Your task to perform on an android device: set default search engine in the chrome app Image 0: 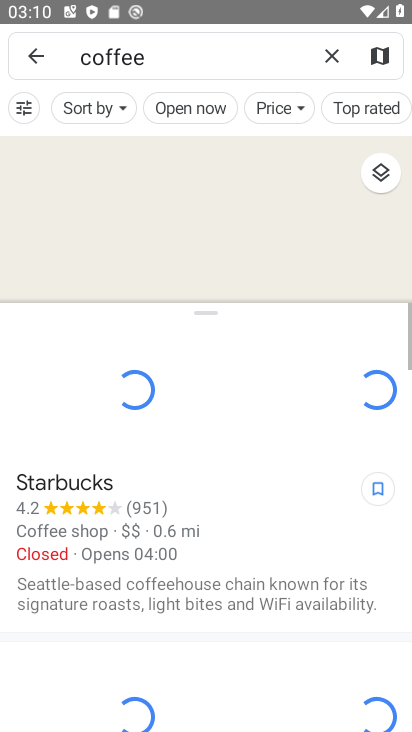
Step 0: press home button
Your task to perform on an android device: set default search engine in the chrome app Image 1: 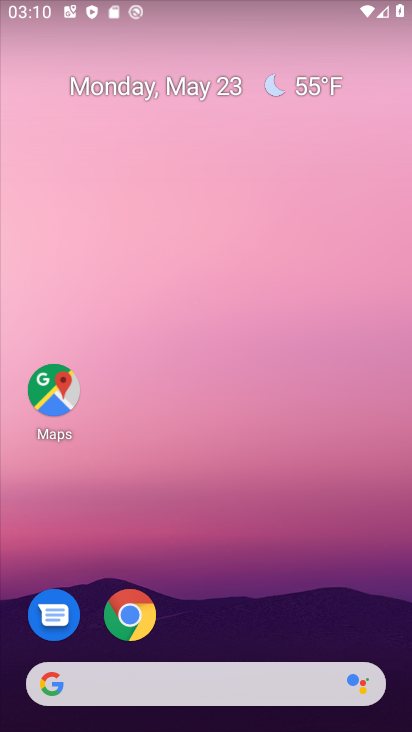
Step 1: drag from (363, 618) to (348, 260)
Your task to perform on an android device: set default search engine in the chrome app Image 2: 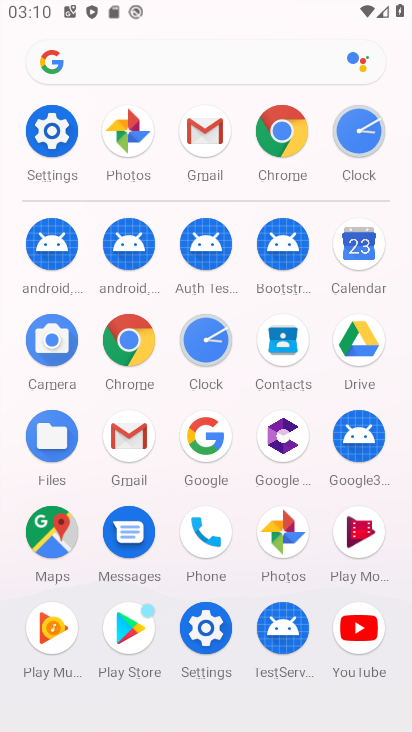
Step 2: click (291, 146)
Your task to perform on an android device: set default search engine in the chrome app Image 3: 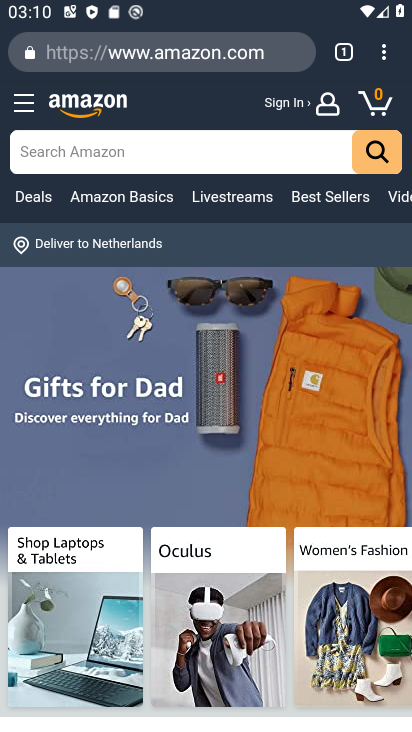
Step 3: click (387, 62)
Your task to perform on an android device: set default search engine in the chrome app Image 4: 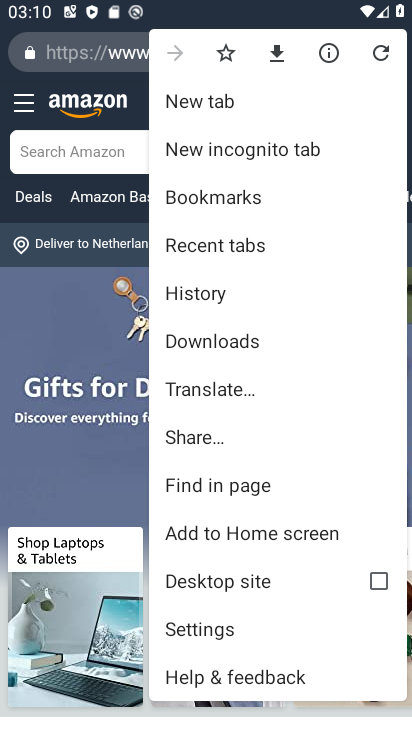
Step 4: drag from (332, 501) to (328, 343)
Your task to perform on an android device: set default search engine in the chrome app Image 5: 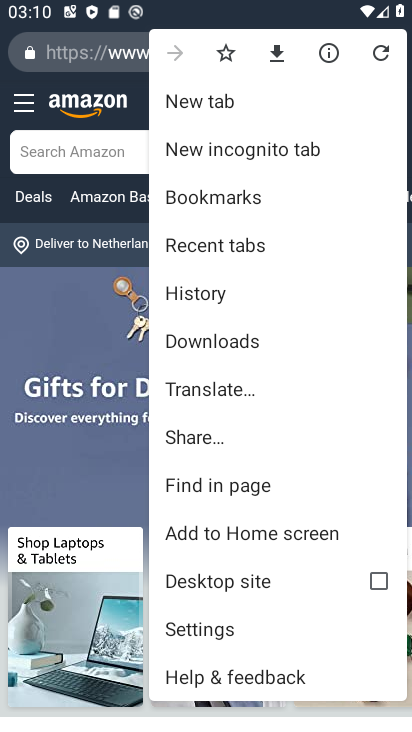
Step 5: drag from (321, 613) to (344, 432)
Your task to perform on an android device: set default search engine in the chrome app Image 6: 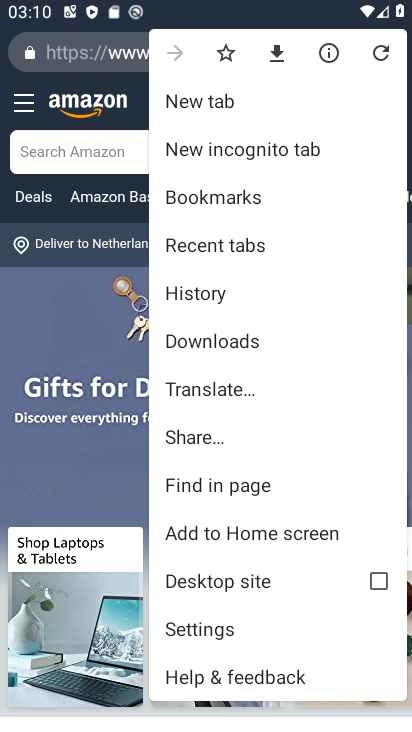
Step 6: click (246, 628)
Your task to perform on an android device: set default search engine in the chrome app Image 7: 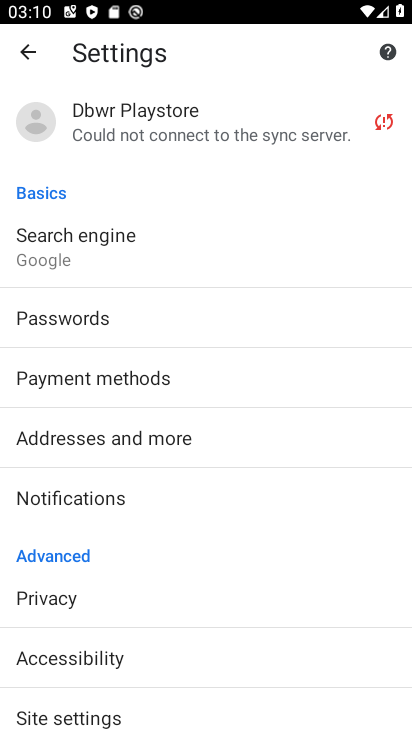
Step 7: drag from (312, 544) to (343, 388)
Your task to perform on an android device: set default search engine in the chrome app Image 8: 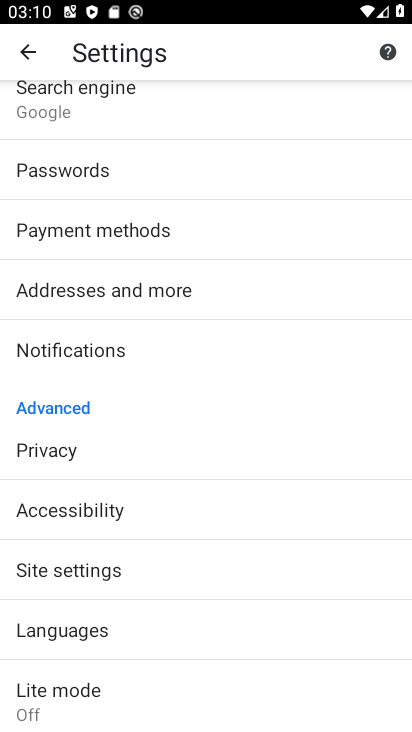
Step 8: drag from (325, 590) to (318, 442)
Your task to perform on an android device: set default search engine in the chrome app Image 9: 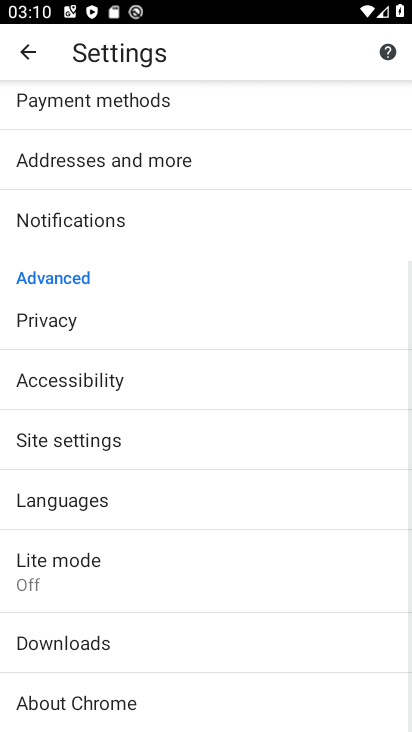
Step 9: drag from (303, 597) to (305, 458)
Your task to perform on an android device: set default search engine in the chrome app Image 10: 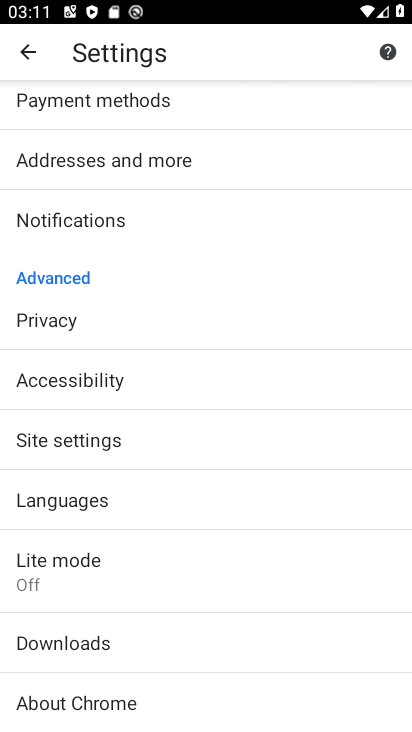
Step 10: drag from (310, 662) to (299, 489)
Your task to perform on an android device: set default search engine in the chrome app Image 11: 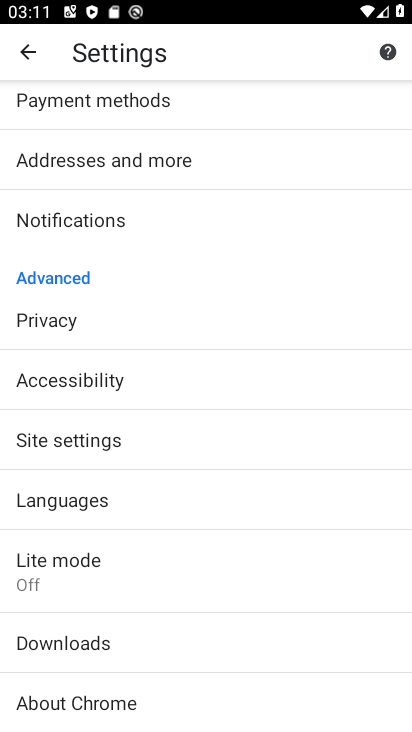
Step 11: drag from (282, 288) to (281, 468)
Your task to perform on an android device: set default search engine in the chrome app Image 12: 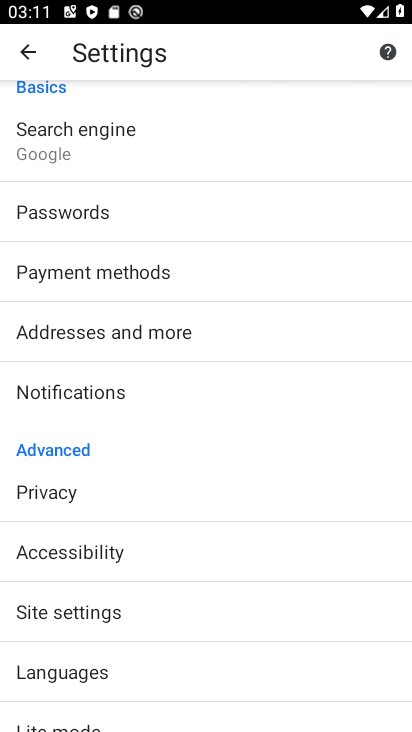
Step 12: drag from (275, 238) to (272, 429)
Your task to perform on an android device: set default search engine in the chrome app Image 13: 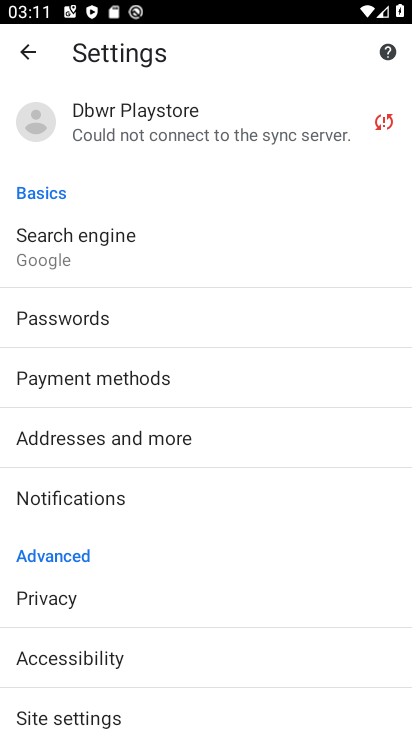
Step 13: click (100, 266)
Your task to perform on an android device: set default search engine in the chrome app Image 14: 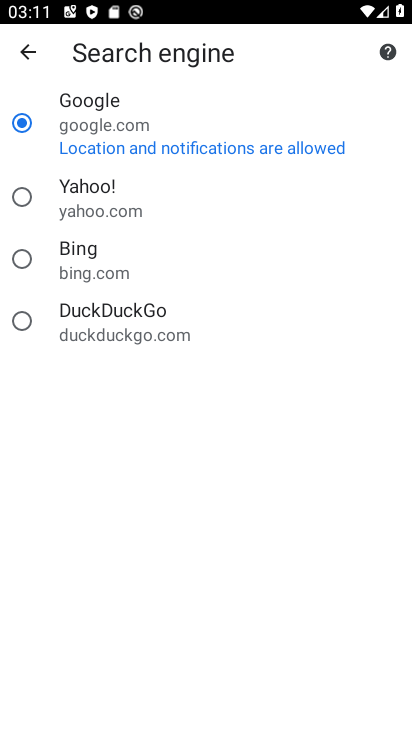
Step 14: click (86, 262)
Your task to perform on an android device: set default search engine in the chrome app Image 15: 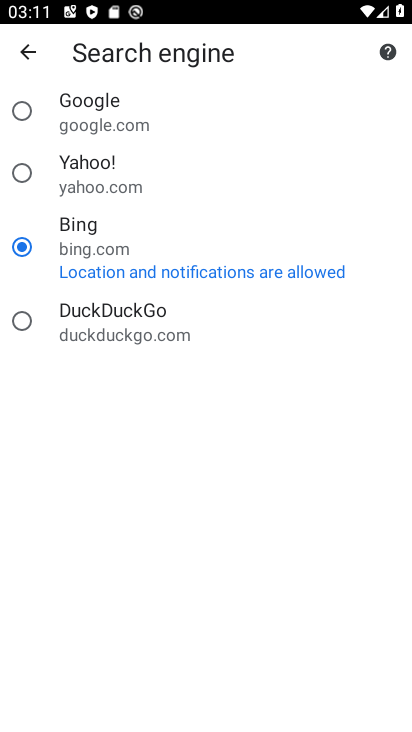
Step 15: task complete